Your task to perform on an android device: Go to settings Image 0: 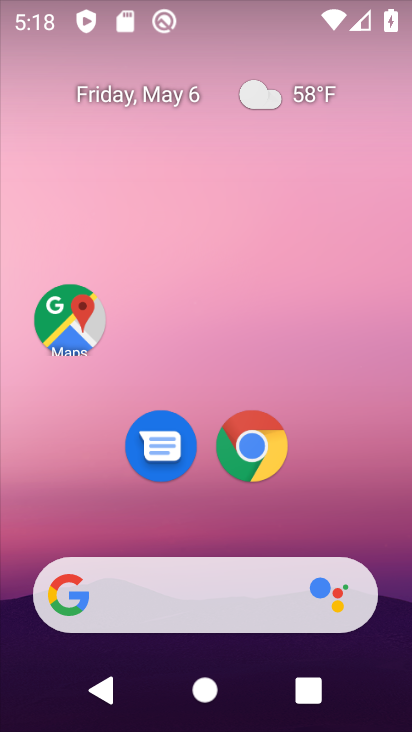
Step 0: drag from (346, 500) to (304, 58)
Your task to perform on an android device: Go to settings Image 1: 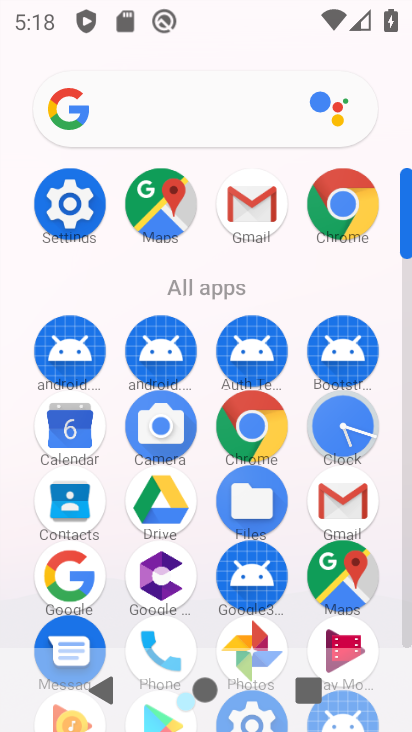
Step 1: click (69, 205)
Your task to perform on an android device: Go to settings Image 2: 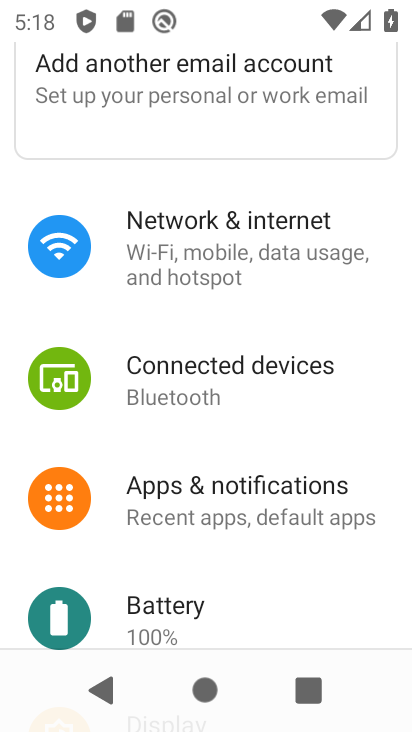
Step 2: task complete